Your task to perform on an android device: What is the news today? Image 0: 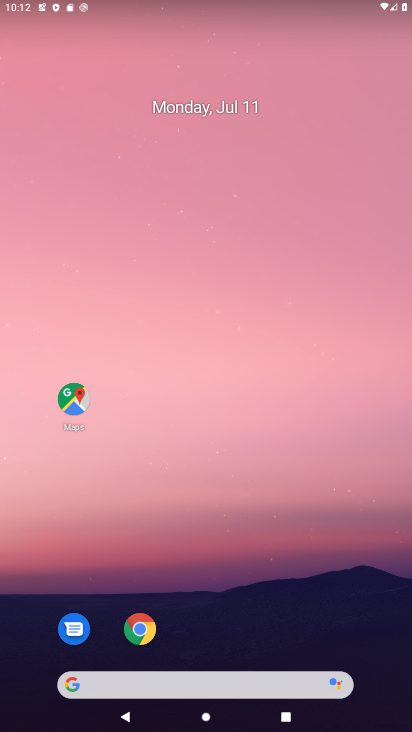
Step 0: drag from (226, 645) to (251, 111)
Your task to perform on an android device: What is the news today? Image 1: 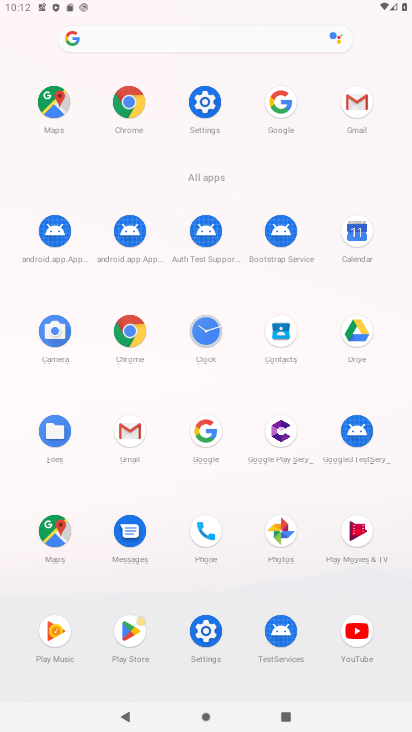
Step 1: click (266, 110)
Your task to perform on an android device: What is the news today? Image 2: 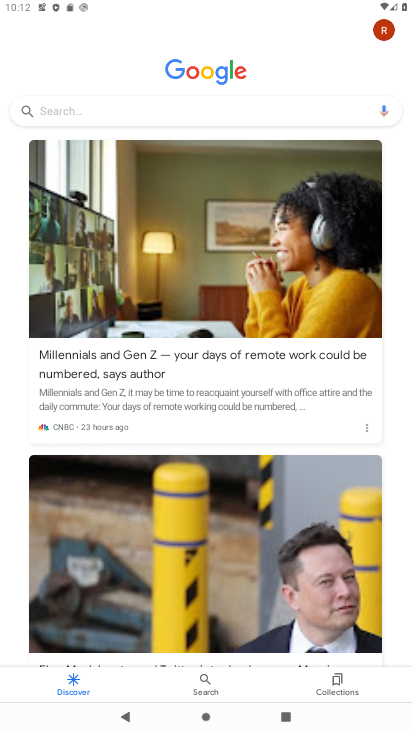
Step 2: click (135, 120)
Your task to perform on an android device: What is the news today? Image 3: 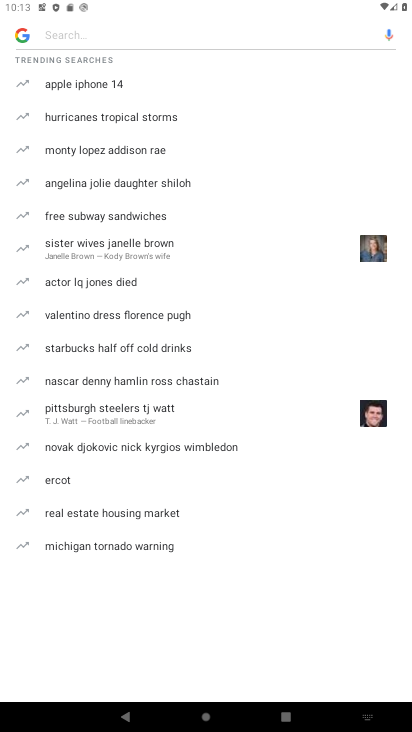
Step 3: type "news"
Your task to perform on an android device: What is the news today? Image 4: 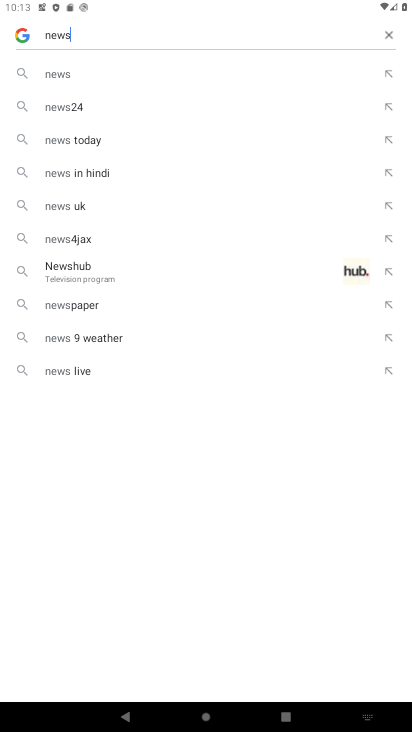
Step 4: click (119, 135)
Your task to perform on an android device: What is the news today? Image 5: 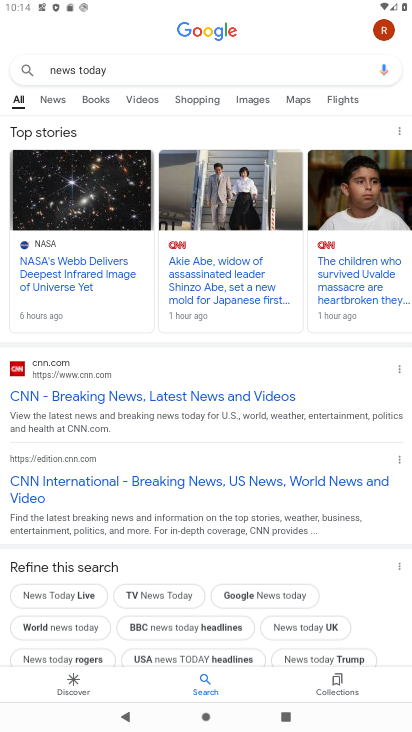
Step 5: click (51, 93)
Your task to perform on an android device: What is the news today? Image 6: 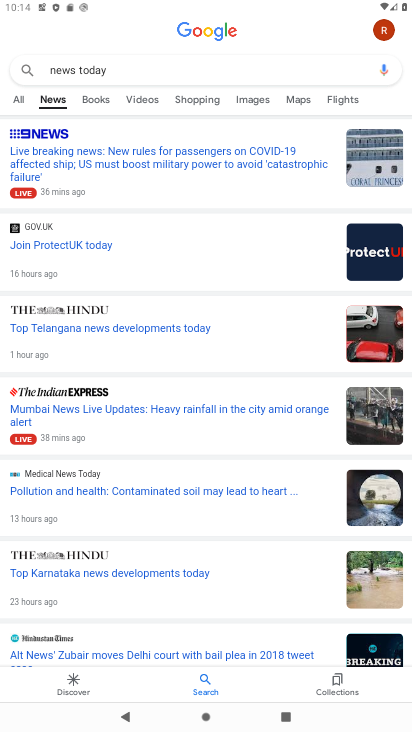
Step 6: task complete